Your task to perform on an android device: How do I get to the nearest Burger King? Image 0: 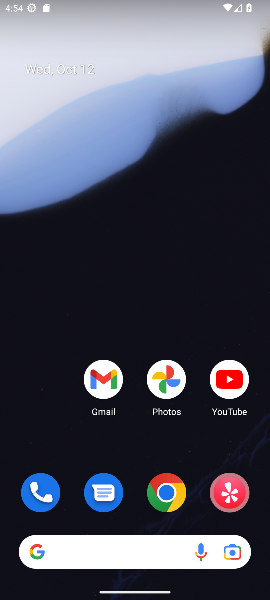
Step 0: click (167, 494)
Your task to perform on an android device: How do I get to the nearest Burger King? Image 1: 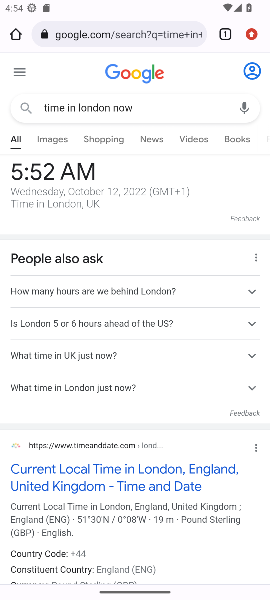
Step 1: click (122, 113)
Your task to perform on an android device: How do I get to the nearest Burger King? Image 2: 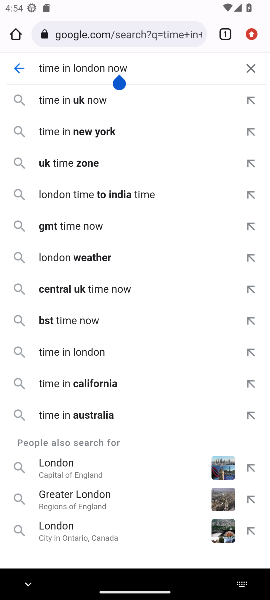
Step 2: click (256, 66)
Your task to perform on an android device: How do I get to the nearest Burger King? Image 3: 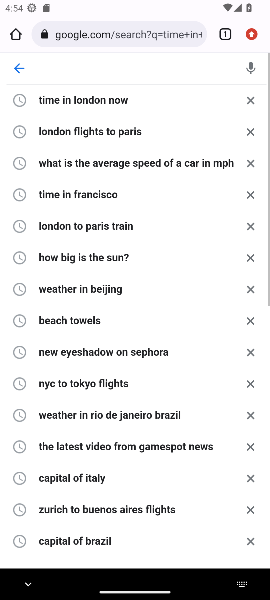
Step 3: type "nearest Burger King"
Your task to perform on an android device: How do I get to the nearest Burger King? Image 4: 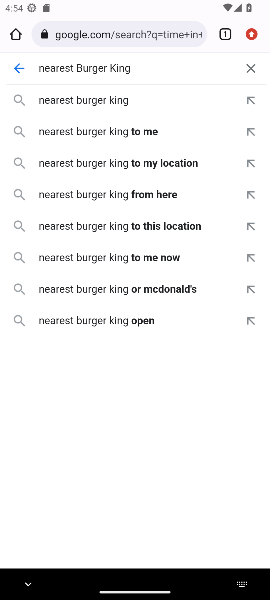
Step 4: click (100, 102)
Your task to perform on an android device: How do I get to the nearest Burger King? Image 5: 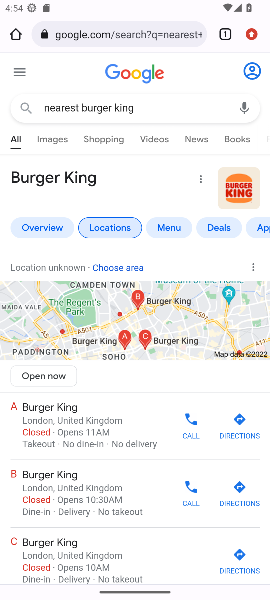
Step 5: task complete